Your task to perform on an android device: Search for vegetarian restaurants on Maps Image 0: 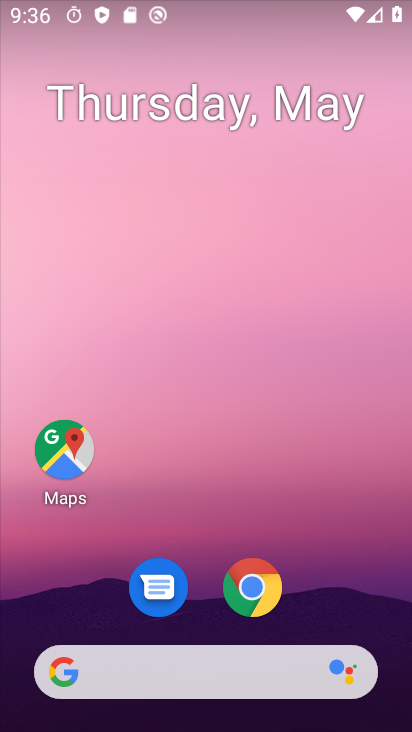
Step 0: click (58, 448)
Your task to perform on an android device: Search for vegetarian restaurants on Maps Image 1: 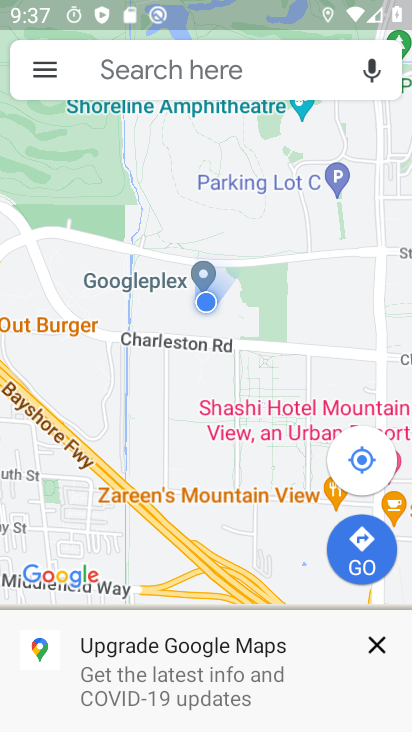
Step 1: click (116, 72)
Your task to perform on an android device: Search for vegetarian restaurants on Maps Image 2: 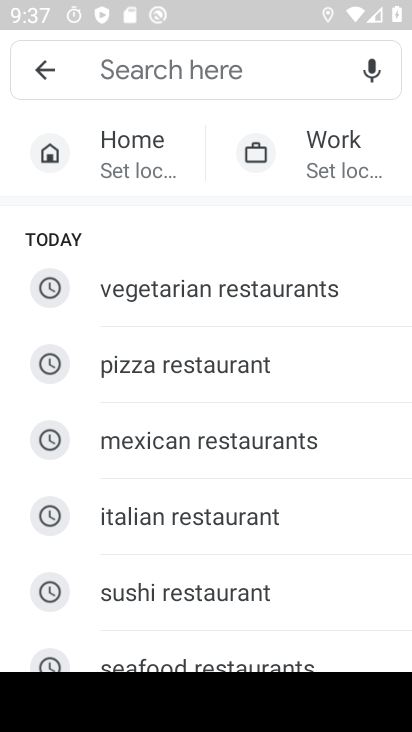
Step 2: type "vegetarian restaurant"
Your task to perform on an android device: Search for vegetarian restaurants on Maps Image 3: 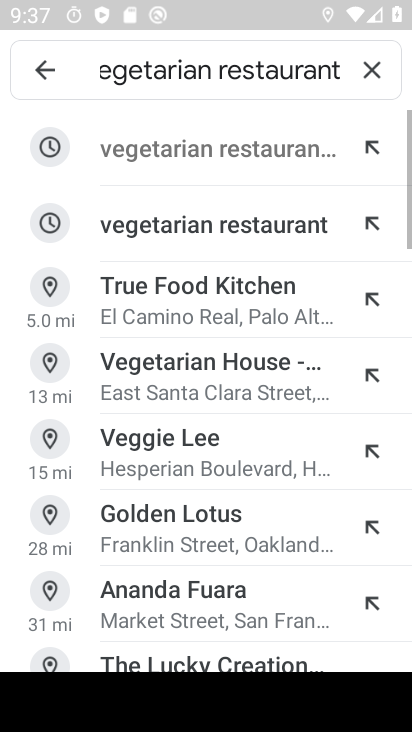
Step 3: click (175, 150)
Your task to perform on an android device: Search for vegetarian restaurants on Maps Image 4: 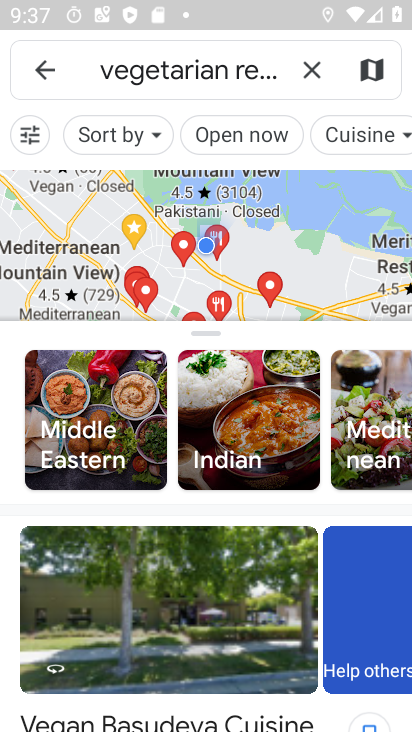
Step 4: task complete